Your task to perform on an android device: Open wifi settings Image 0: 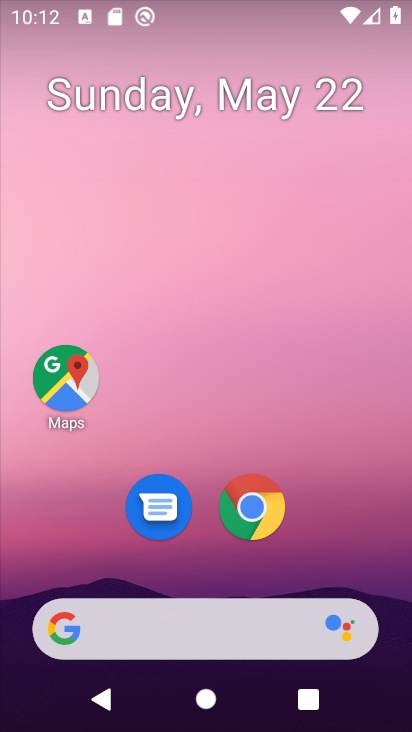
Step 0: drag from (252, 12) to (85, 715)
Your task to perform on an android device: Open wifi settings Image 1: 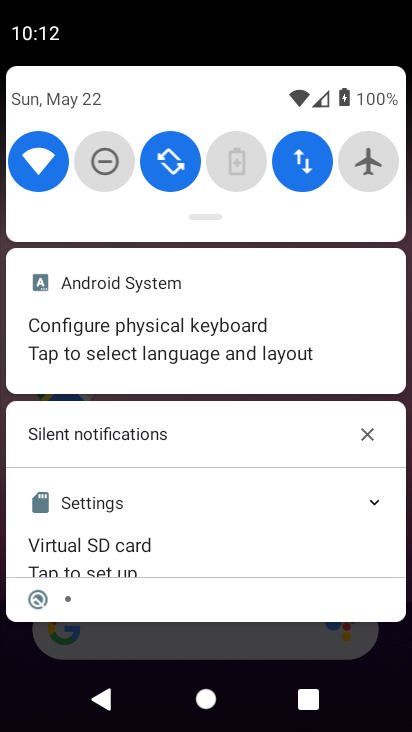
Step 1: click (43, 168)
Your task to perform on an android device: Open wifi settings Image 2: 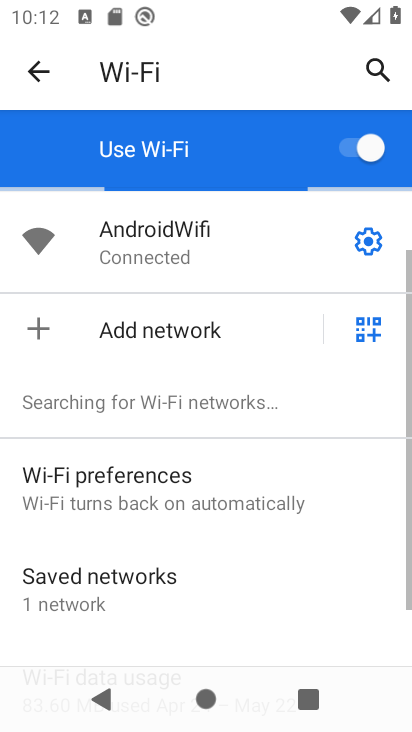
Step 2: task complete